Your task to perform on an android device: Open accessibility settings Image 0: 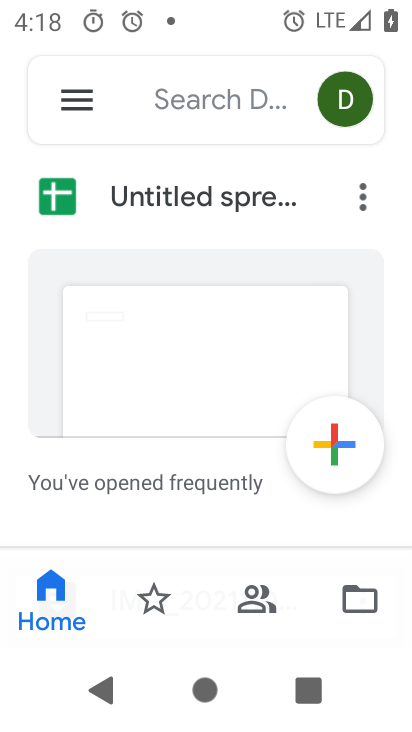
Step 0: press home button
Your task to perform on an android device: Open accessibility settings Image 1: 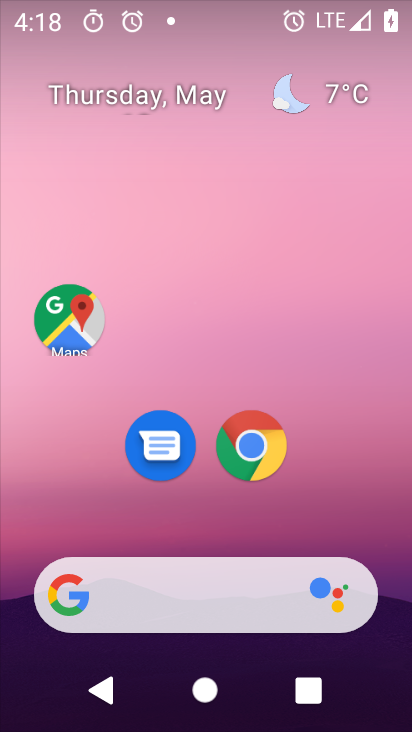
Step 1: drag from (385, 554) to (378, 15)
Your task to perform on an android device: Open accessibility settings Image 2: 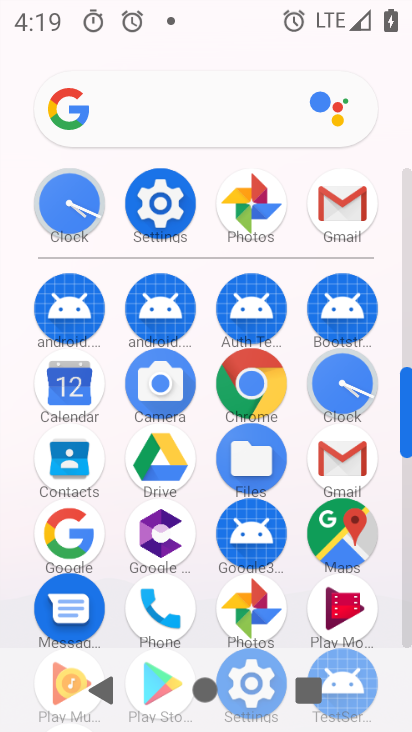
Step 2: click (159, 208)
Your task to perform on an android device: Open accessibility settings Image 3: 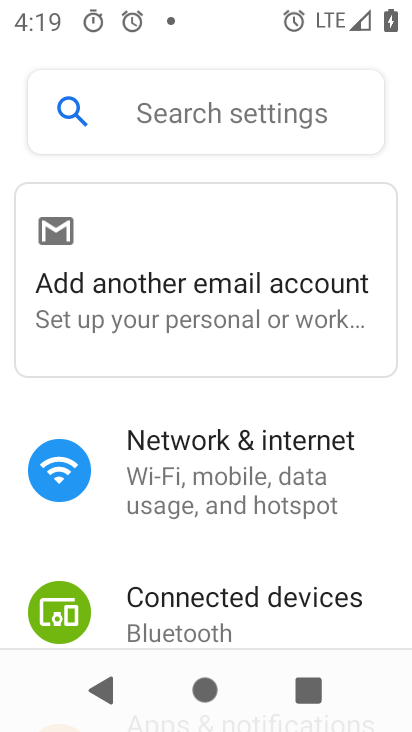
Step 3: drag from (362, 572) to (394, 1)
Your task to perform on an android device: Open accessibility settings Image 4: 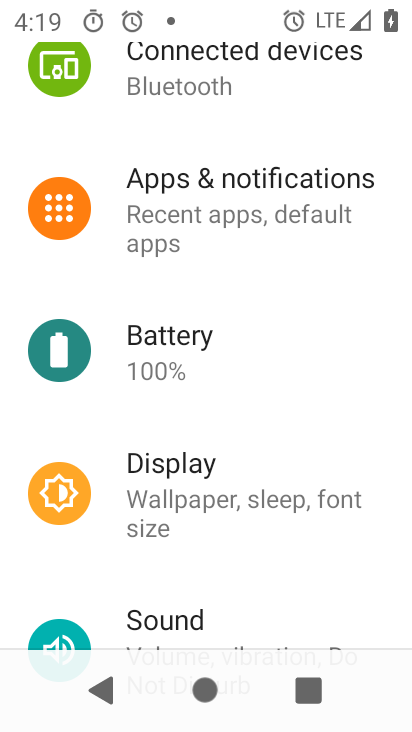
Step 4: drag from (309, 503) to (318, 131)
Your task to perform on an android device: Open accessibility settings Image 5: 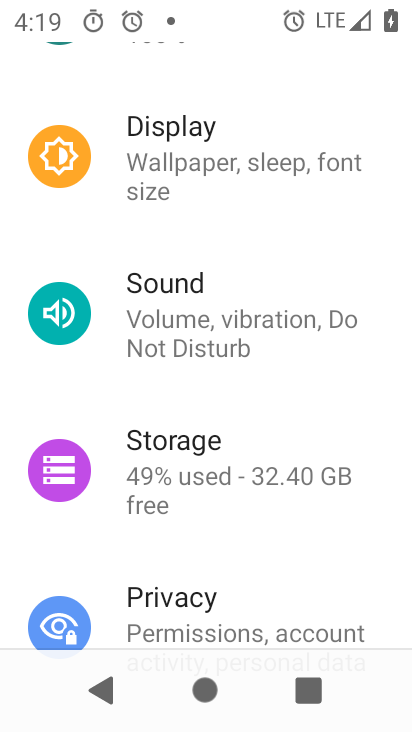
Step 5: drag from (302, 529) to (314, 115)
Your task to perform on an android device: Open accessibility settings Image 6: 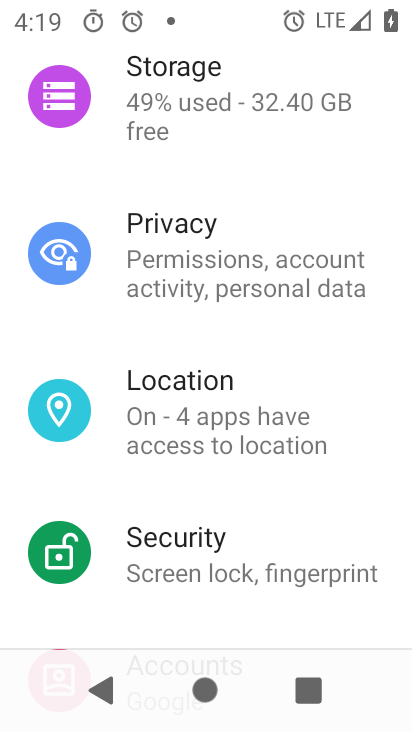
Step 6: drag from (298, 471) to (289, 156)
Your task to perform on an android device: Open accessibility settings Image 7: 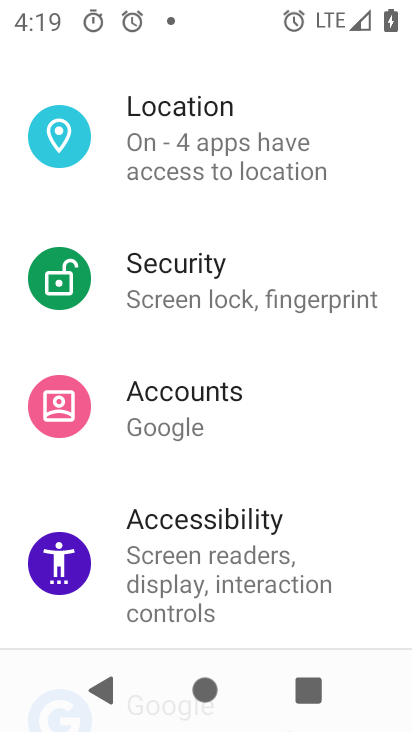
Step 7: click (193, 561)
Your task to perform on an android device: Open accessibility settings Image 8: 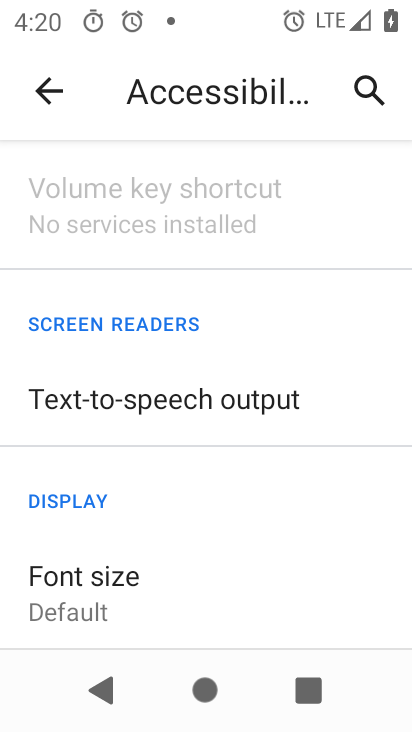
Step 8: task complete